Your task to perform on an android device: refresh tabs in the chrome app Image 0: 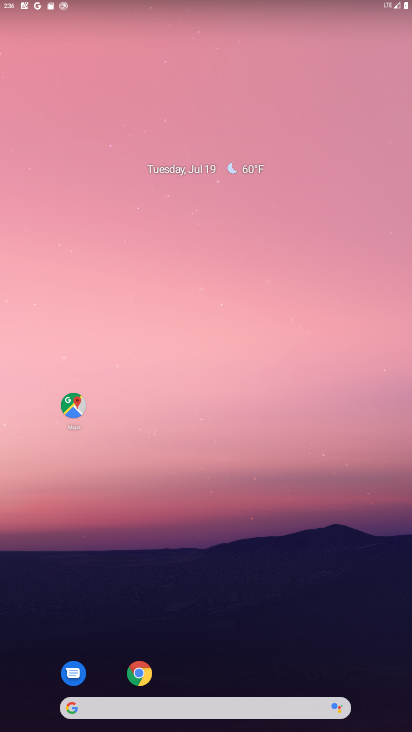
Step 0: click (144, 685)
Your task to perform on an android device: refresh tabs in the chrome app Image 1: 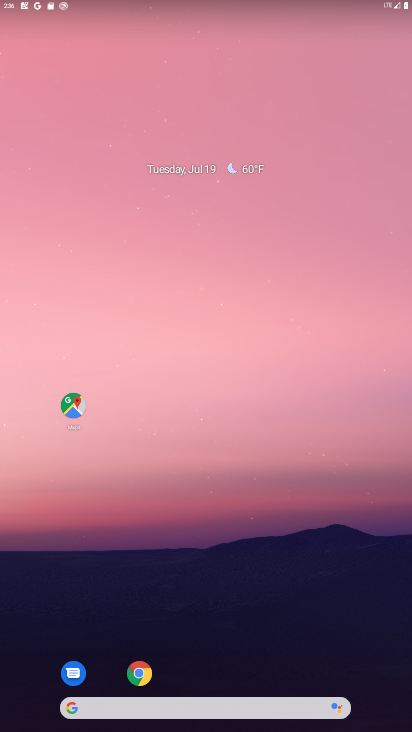
Step 1: click (144, 685)
Your task to perform on an android device: refresh tabs in the chrome app Image 2: 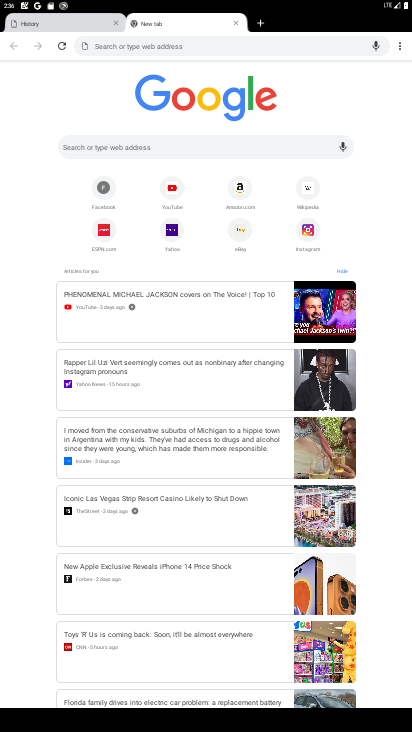
Step 2: click (405, 49)
Your task to perform on an android device: refresh tabs in the chrome app Image 3: 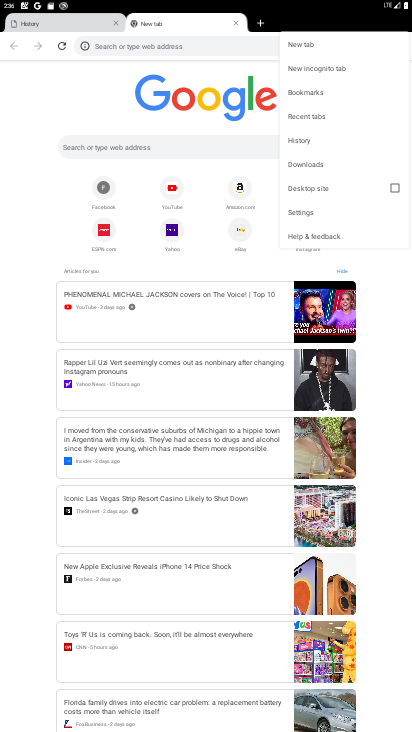
Step 3: click (18, 213)
Your task to perform on an android device: refresh tabs in the chrome app Image 4: 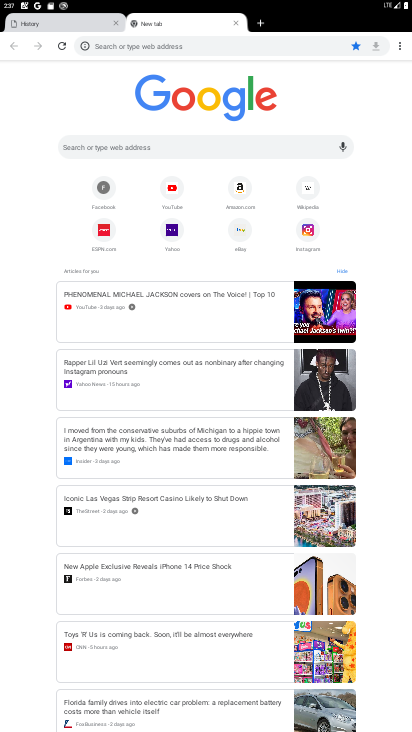
Step 4: click (56, 48)
Your task to perform on an android device: refresh tabs in the chrome app Image 5: 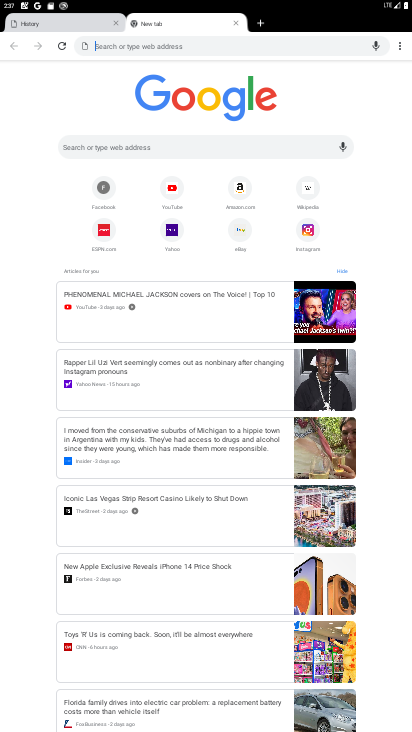
Step 5: task complete